Your task to perform on an android device: clear all cookies in the chrome app Image 0: 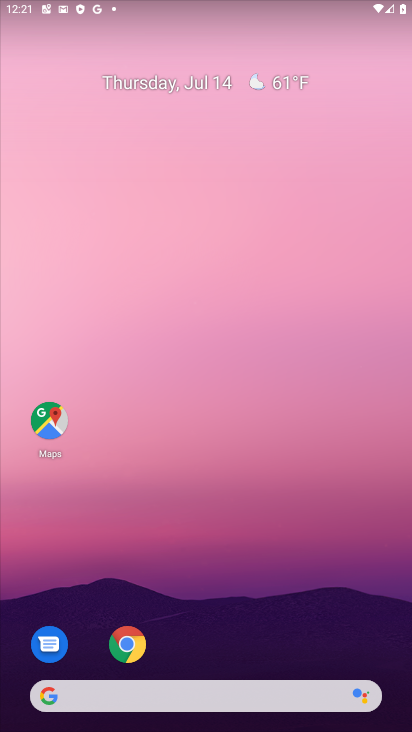
Step 0: click (133, 639)
Your task to perform on an android device: clear all cookies in the chrome app Image 1: 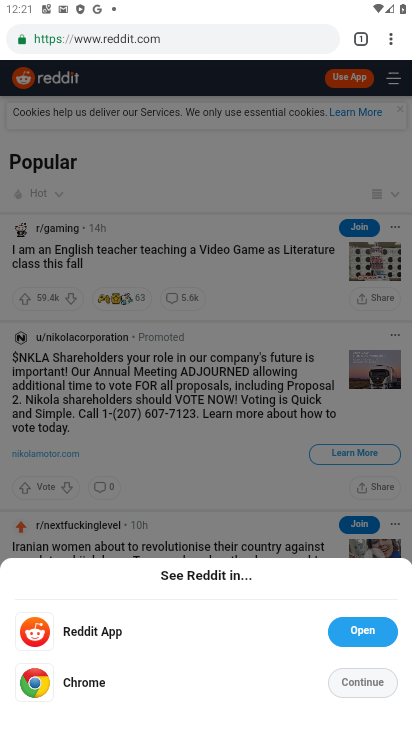
Step 1: click (394, 43)
Your task to perform on an android device: clear all cookies in the chrome app Image 2: 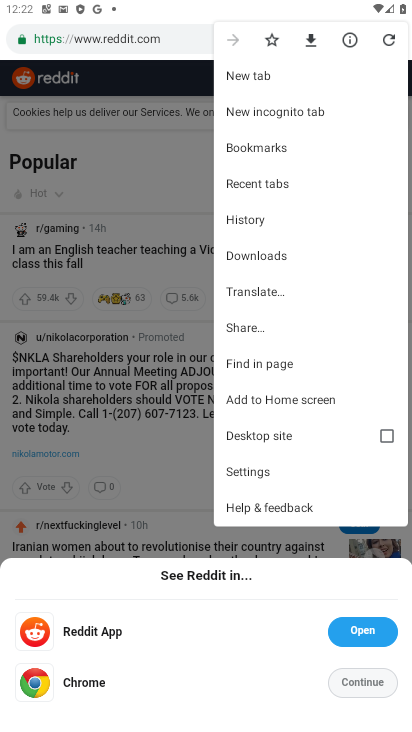
Step 2: click (263, 207)
Your task to perform on an android device: clear all cookies in the chrome app Image 3: 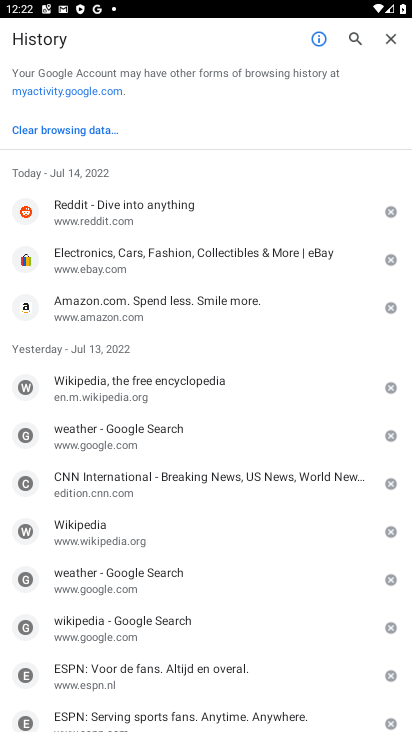
Step 3: click (75, 124)
Your task to perform on an android device: clear all cookies in the chrome app Image 4: 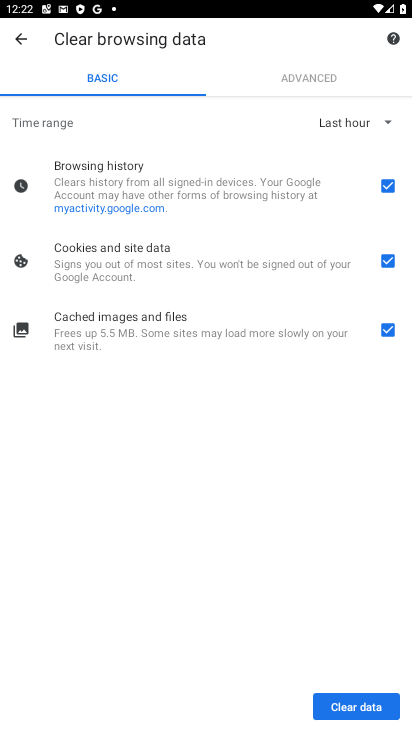
Step 4: click (371, 176)
Your task to perform on an android device: clear all cookies in the chrome app Image 5: 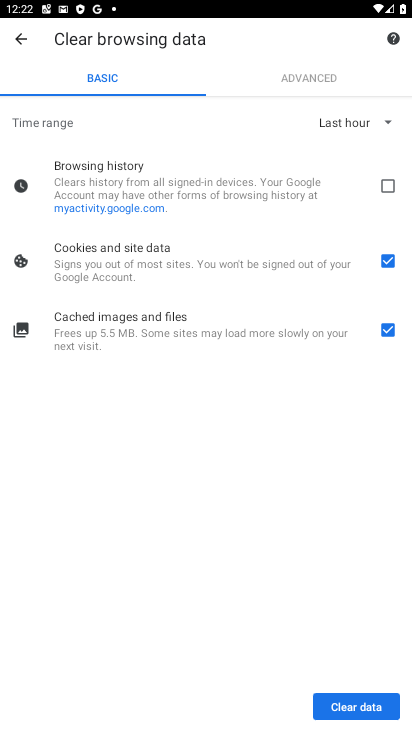
Step 5: click (380, 319)
Your task to perform on an android device: clear all cookies in the chrome app Image 6: 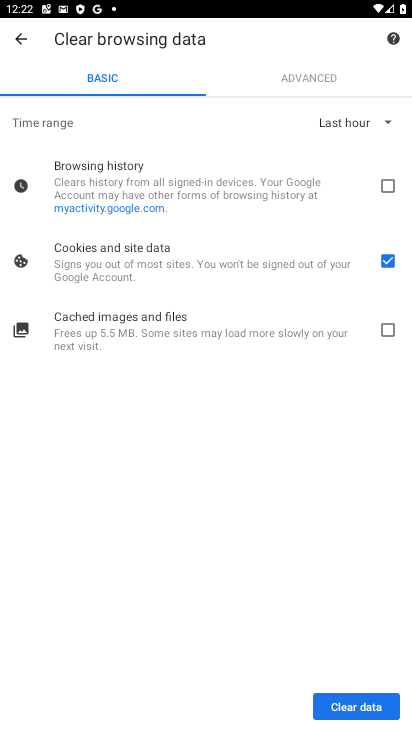
Step 6: click (363, 707)
Your task to perform on an android device: clear all cookies in the chrome app Image 7: 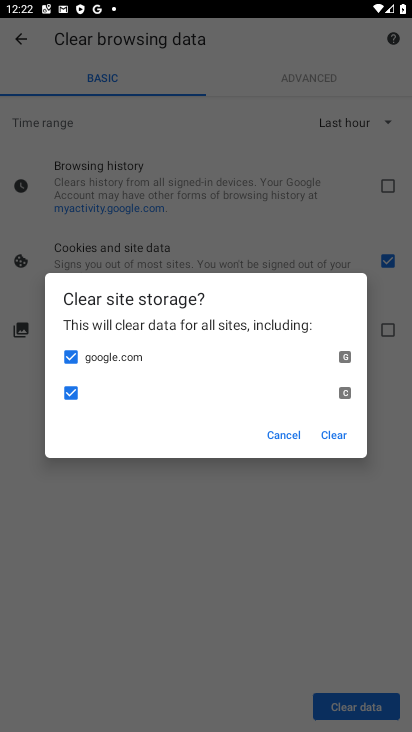
Step 7: click (345, 436)
Your task to perform on an android device: clear all cookies in the chrome app Image 8: 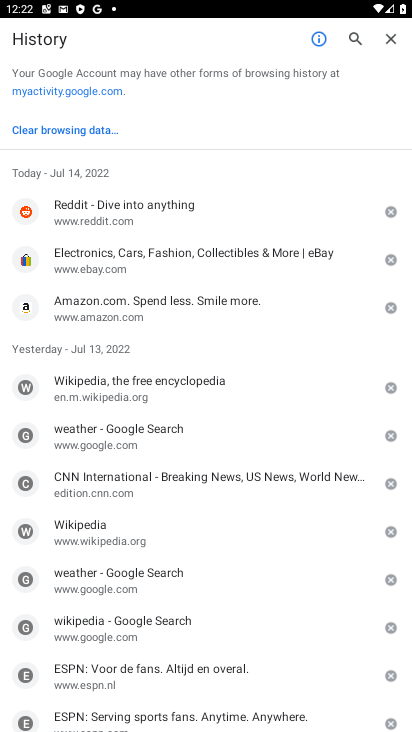
Step 8: task complete